Your task to perform on an android device: Open internet settings Image 0: 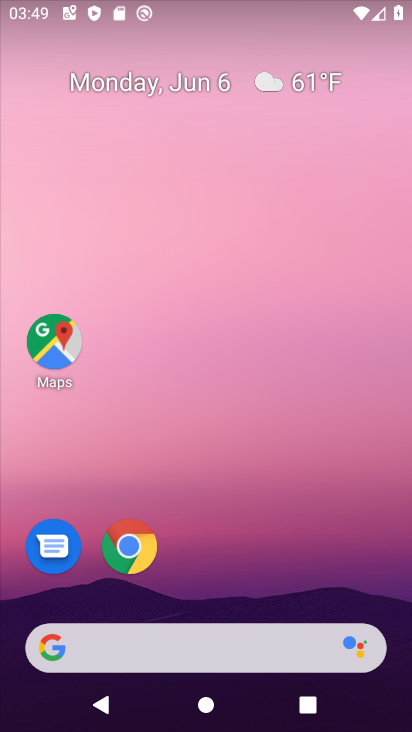
Step 0: drag from (240, 539) to (255, 0)
Your task to perform on an android device: Open internet settings Image 1: 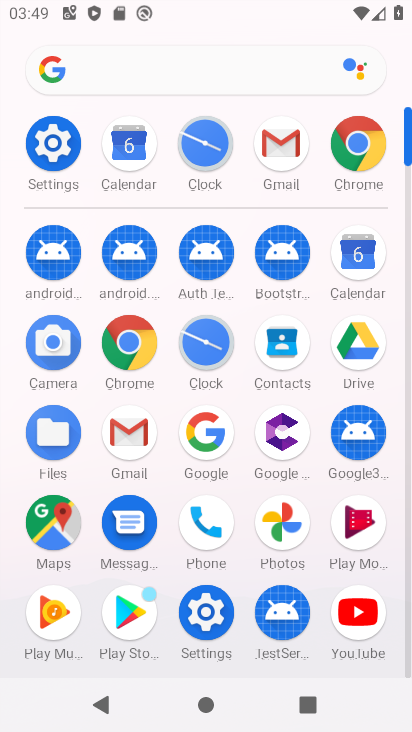
Step 1: click (47, 159)
Your task to perform on an android device: Open internet settings Image 2: 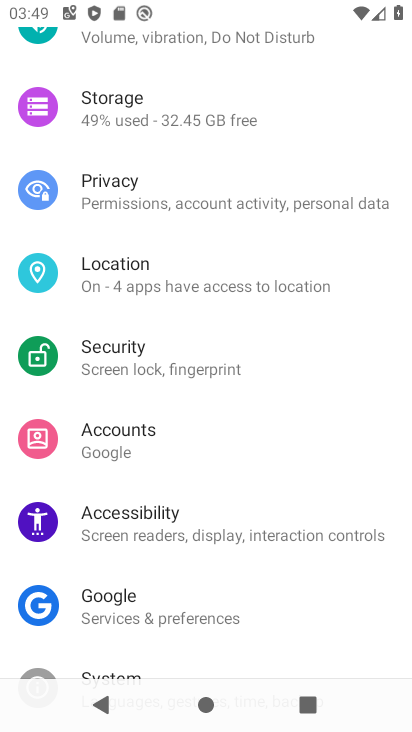
Step 2: drag from (221, 84) to (223, 482)
Your task to perform on an android device: Open internet settings Image 3: 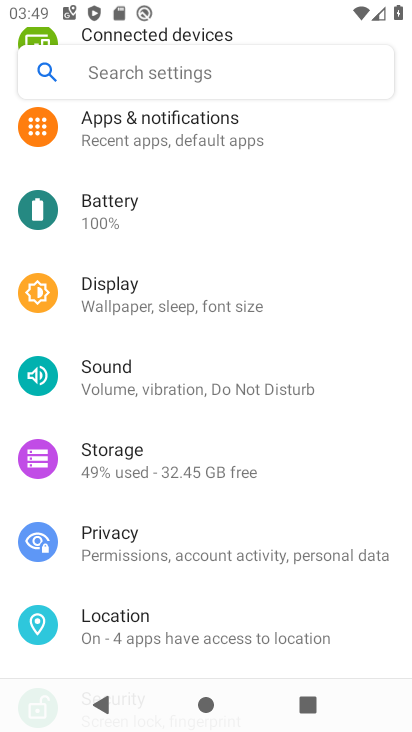
Step 3: drag from (181, 234) to (194, 546)
Your task to perform on an android device: Open internet settings Image 4: 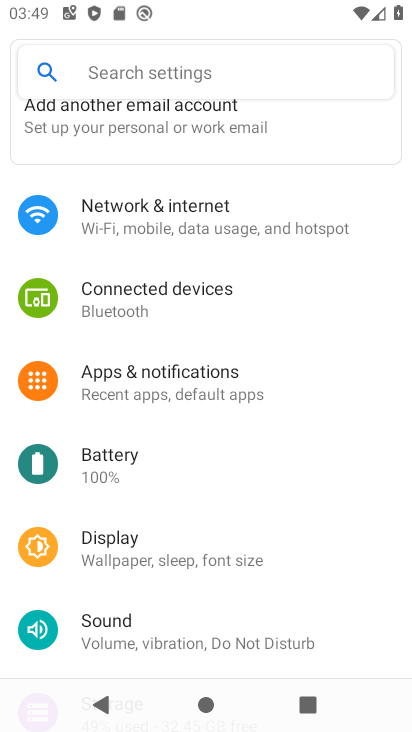
Step 4: click (152, 213)
Your task to perform on an android device: Open internet settings Image 5: 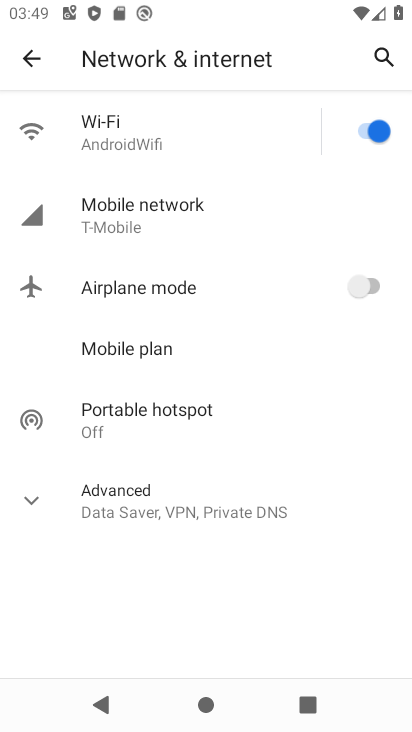
Step 5: task complete